Your task to perform on an android device: toggle data saver in the chrome app Image 0: 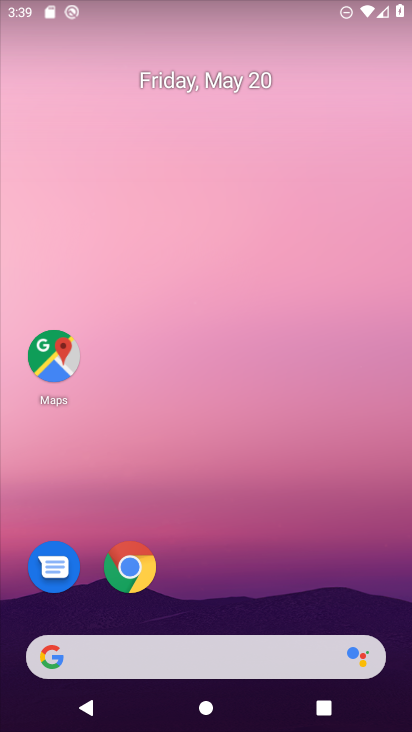
Step 0: click (116, 573)
Your task to perform on an android device: toggle data saver in the chrome app Image 1: 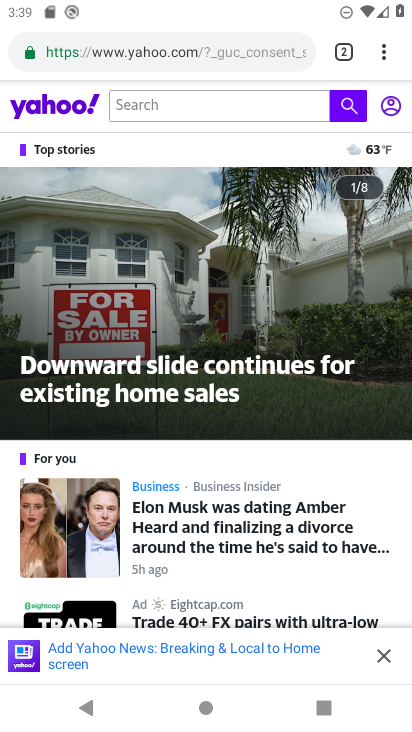
Step 1: click (385, 51)
Your task to perform on an android device: toggle data saver in the chrome app Image 2: 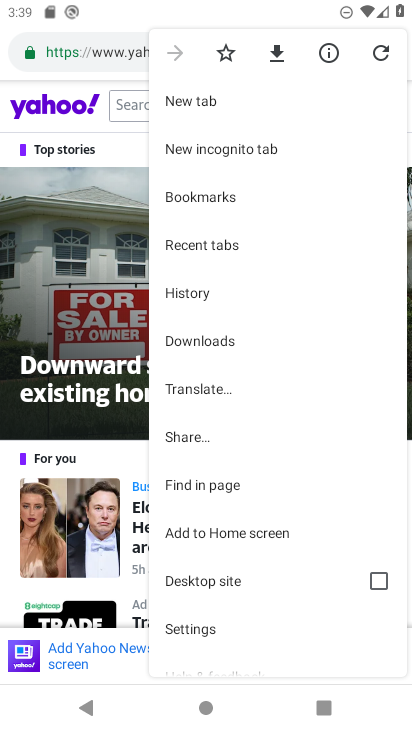
Step 2: click (201, 629)
Your task to perform on an android device: toggle data saver in the chrome app Image 3: 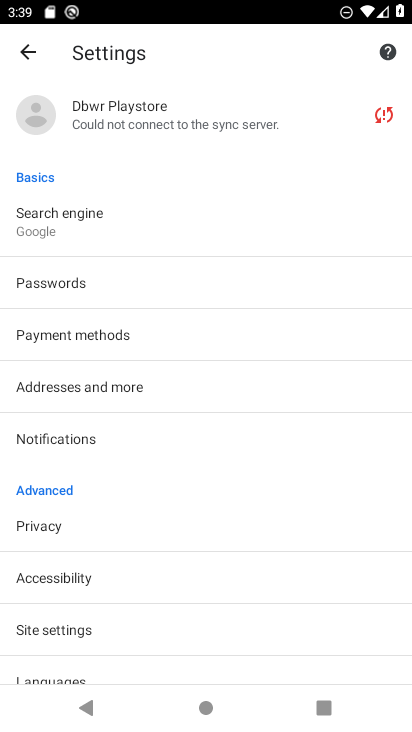
Step 3: drag from (90, 648) to (89, 404)
Your task to perform on an android device: toggle data saver in the chrome app Image 4: 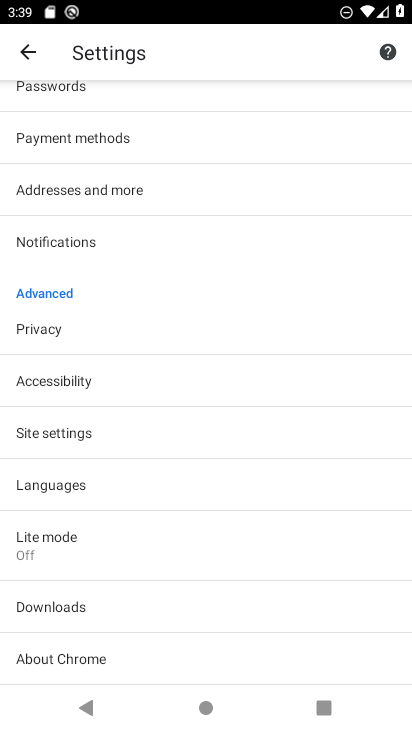
Step 4: click (71, 539)
Your task to perform on an android device: toggle data saver in the chrome app Image 5: 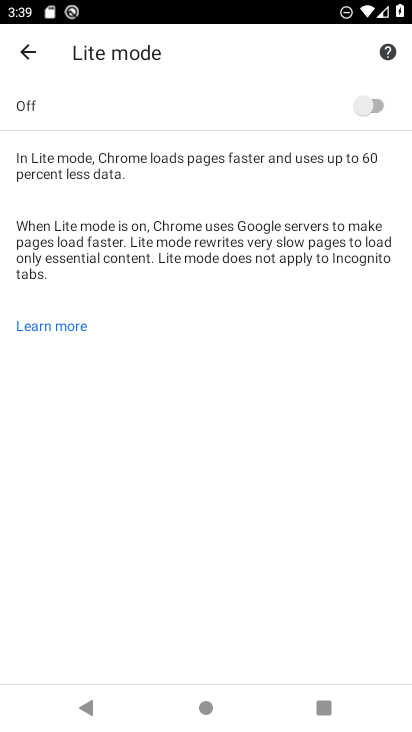
Step 5: click (377, 103)
Your task to perform on an android device: toggle data saver in the chrome app Image 6: 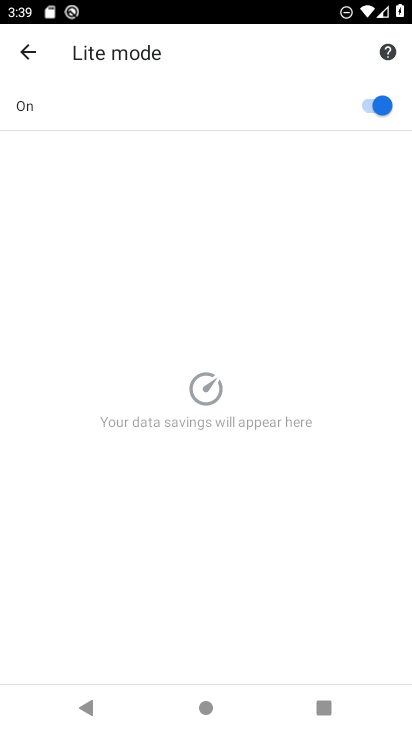
Step 6: task complete